Your task to perform on an android device: Go to display settings Image 0: 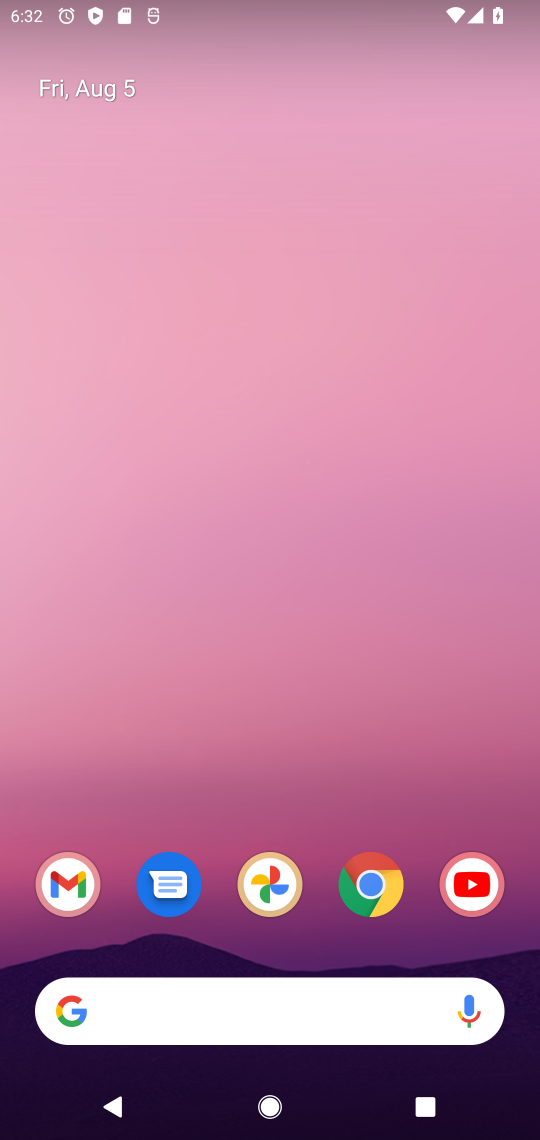
Step 0: press home button
Your task to perform on an android device: Go to display settings Image 1: 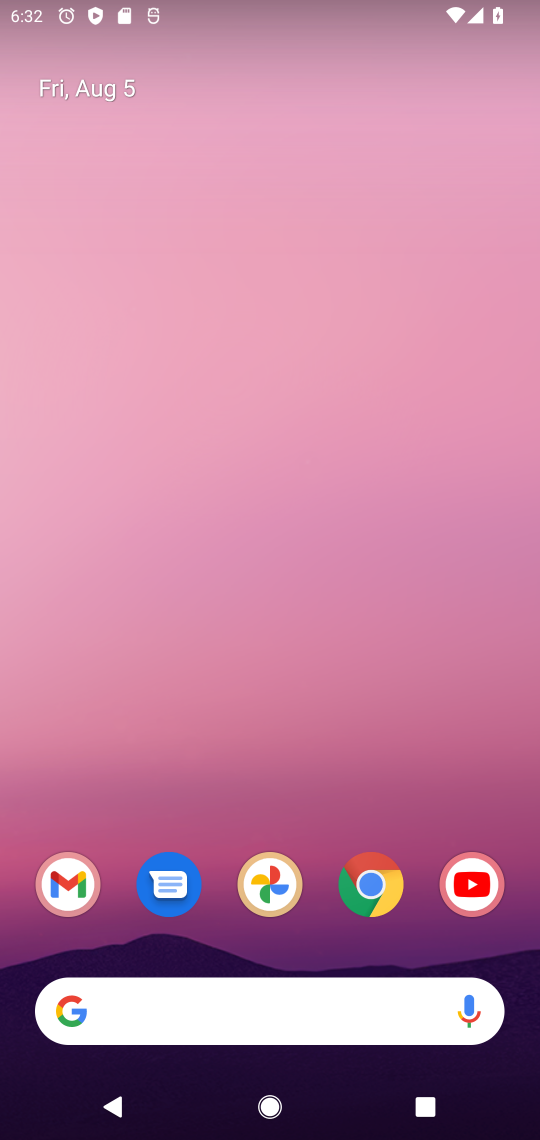
Step 1: drag from (325, 846) to (385, 68)
Your task to perform on an android device: Go to display settings Image 2: 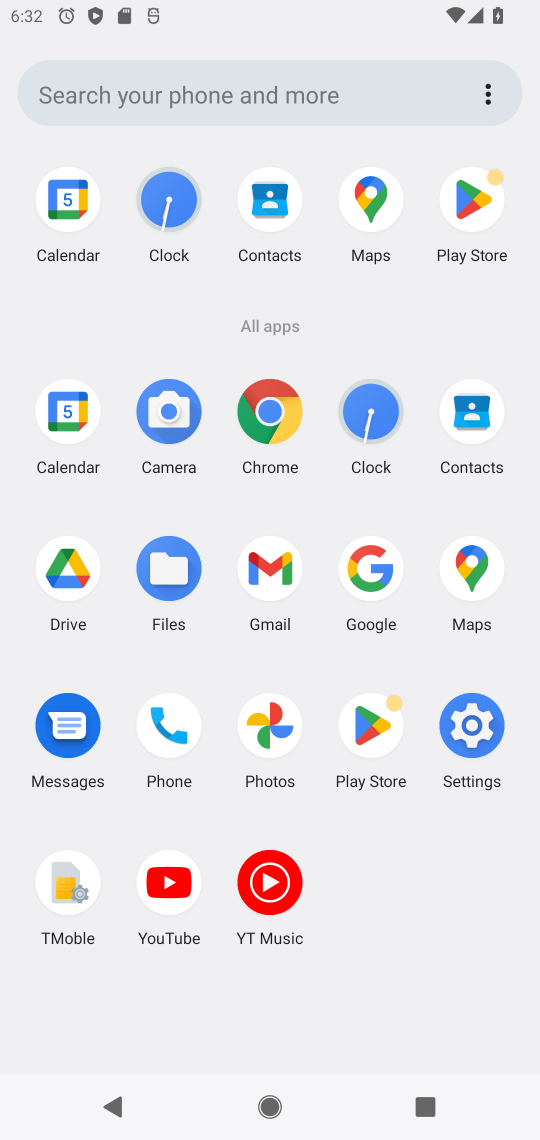
Step 2: click (463, 715)
Your task to perform on an android device: Go to display settings Image 3: 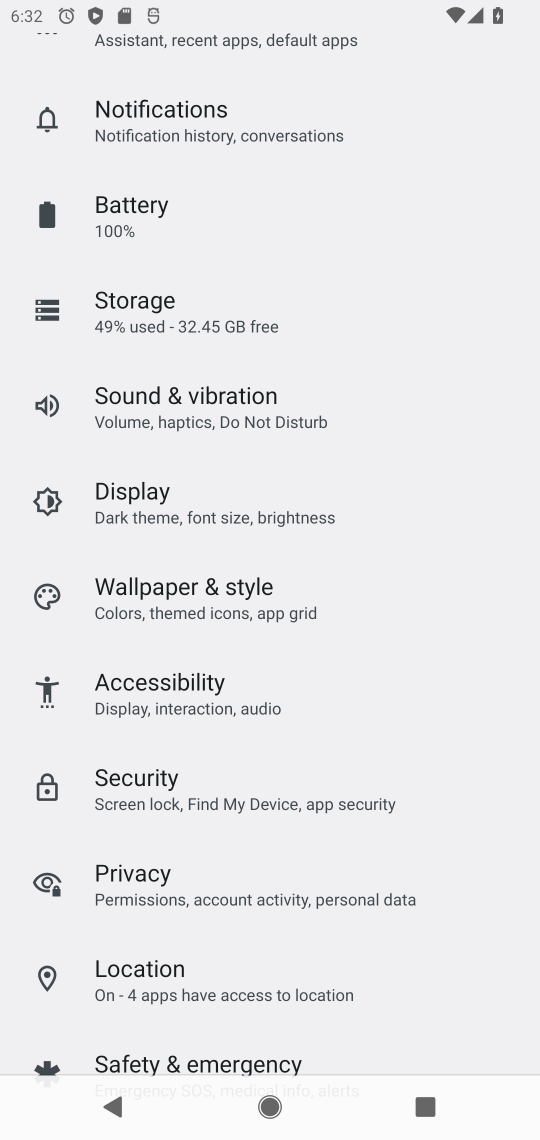
Step 3: click (186, 488)
Your task to perform on an android device: Go to display settings Image 4: 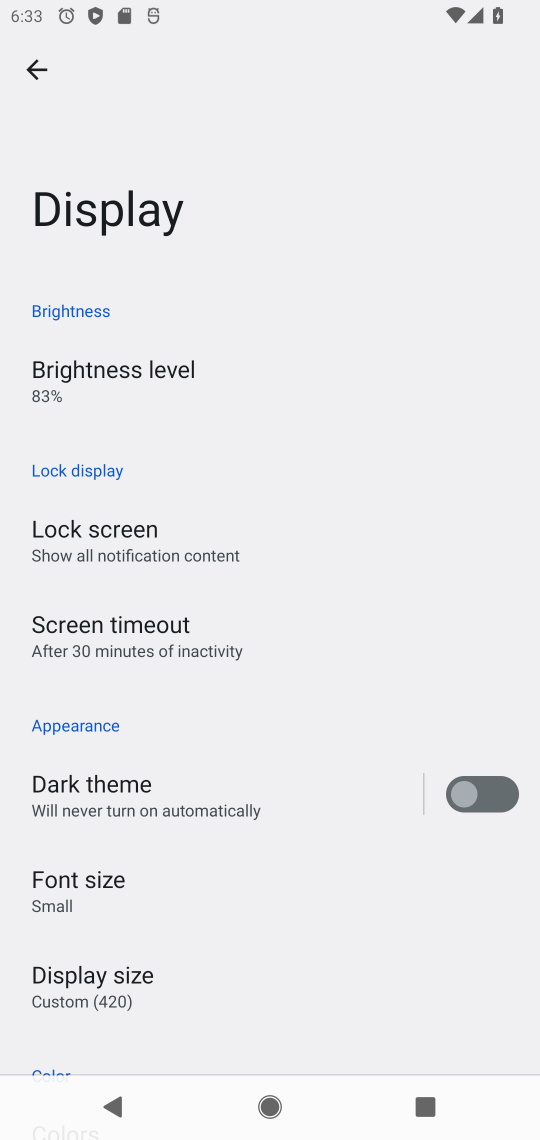
Step 4: task complete